Your task to perform on an android device: open app "Flipkart Online Shopping App" (install if not already installed) and go to login screen Image 0: 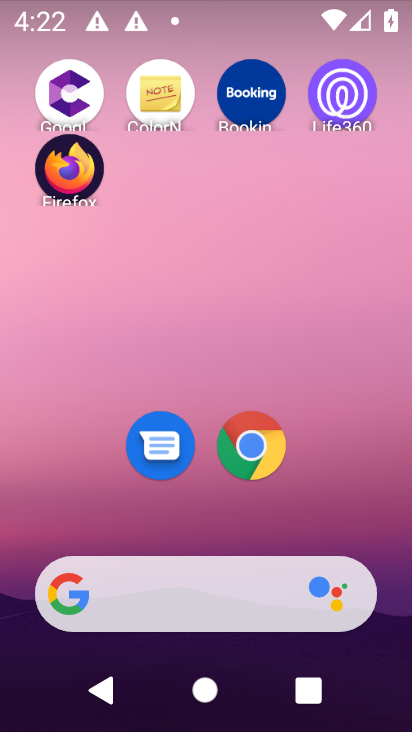
Step 0: drag from (204, 539) to (237, 1)
Your task to perform on an android device: open app "Flipkart Online Shopping App" (install if not already installed) and go to login screen Image 1: 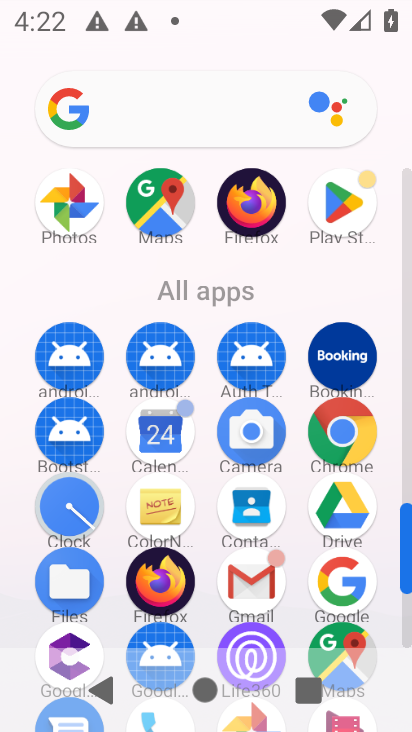
Step 1: click (339, 209)
Your task to perform on an android device: open app "Flipkart Online Shopping App" (install if not already installed) and go to login screen Image 2: 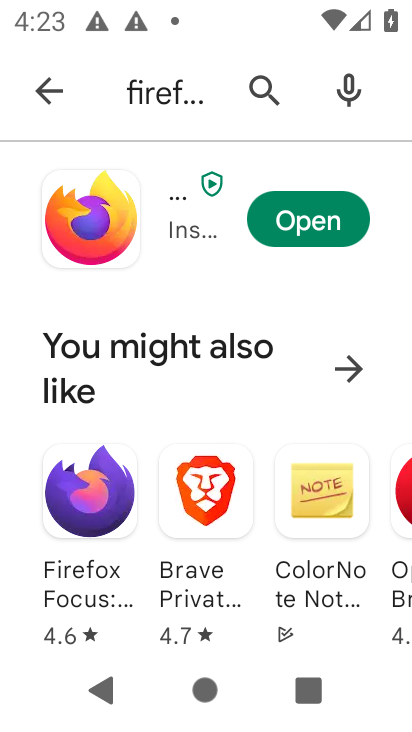
Step 2: click (150, 88)
Your task to perform on an android device: open app "Flipkart Online Shopping App" (install if not already installed) and go to login screen Image 3: 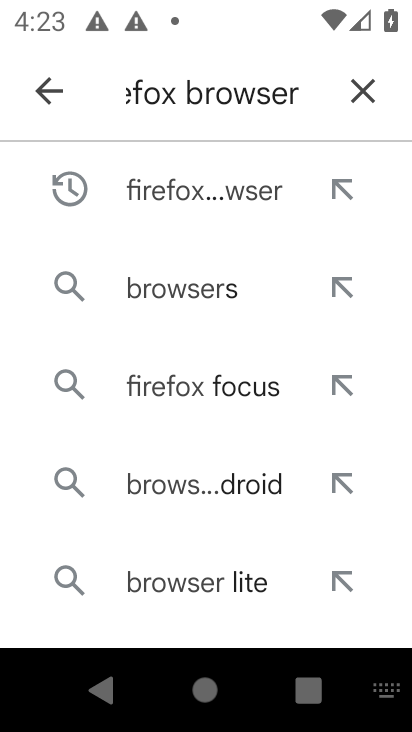
Step 3: click (356, 81)
Your task to perform on an android device: open app "Flipkart Online Shopping App" (install if not already installed) and go to login screen Image 4: 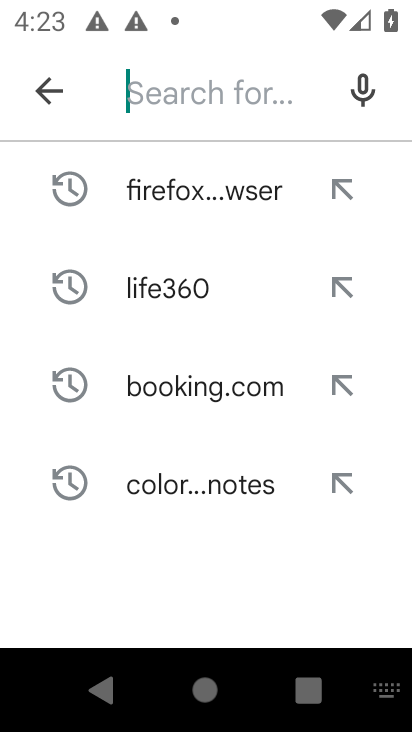
Step 4: type "flipkart"
Your task to perform on an android device: open app "Flipkart Online Shopping App" (install if not already installed) and go to login screen Image 5: 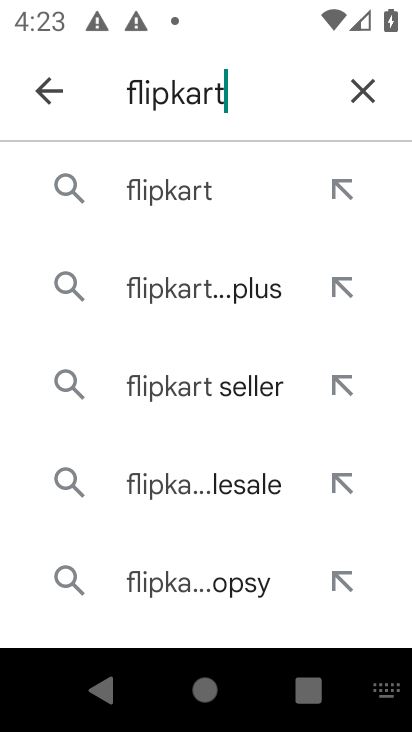
Step 5: click (158, 229)
Your task to perform on an android device: open app "Flipkart Online Shopping App" (install if not already installed) and go to login screen Image 6: 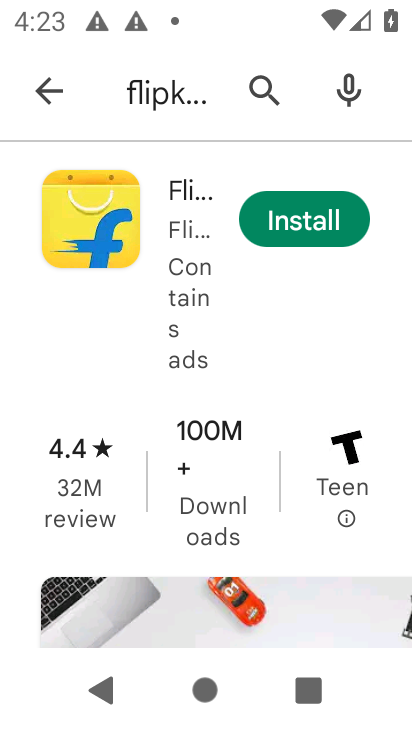
Step 6: click (296, 225)
Your task to perform on an android device: open app "Flipkart Online Shopping App" (install if not already installed) and go to login screen Image 7: 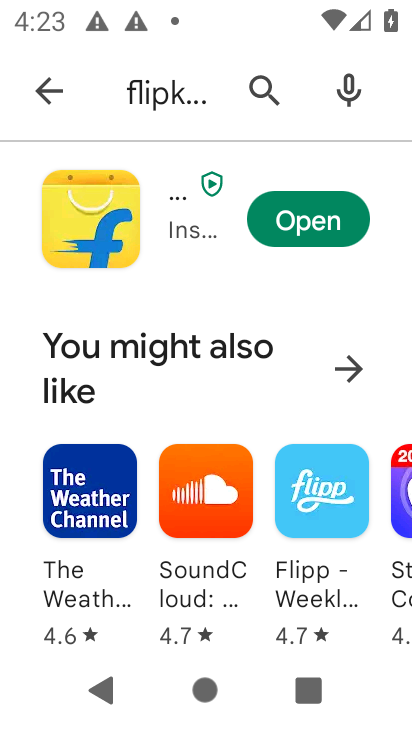
Step 7: click (317, 220)
Your task to perform on an android device: open app "Flipkart Online Shopping App" (install if not already installed) and go to login screen Image 8: 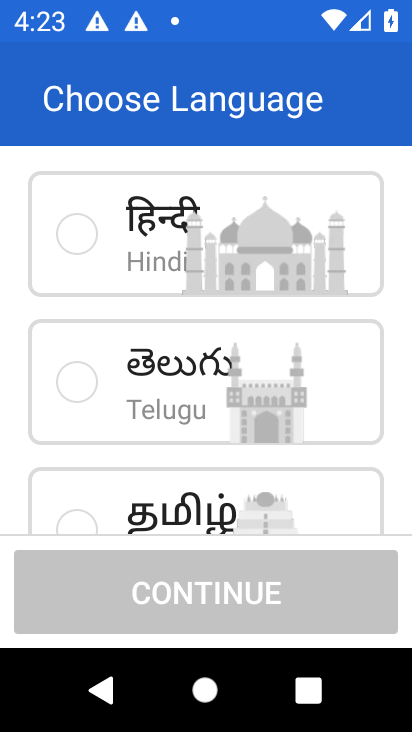
Step 8: drag from (170, 475) to (221, 106)
Your task to perform on an android device: open app "Flipkart Online Shopping App" (install if not already installed) and go to login screen Image 9: 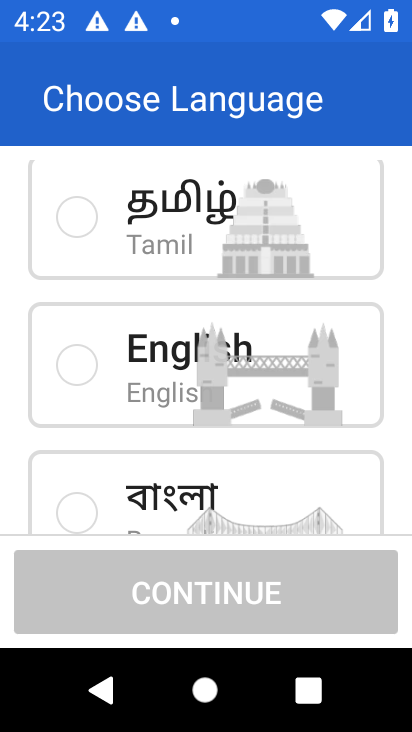
Step 9: click (80, 347)
Your task to perform on an android device: open app "Flipkart Online Shopping App" (install if not already installed) and go to login screen Image 10: 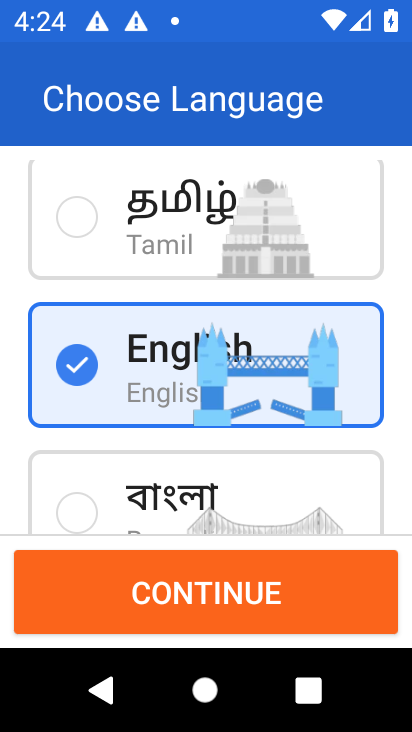
Step 10: click (162, 602)
Your task to perform on an android device: open app "Flipkart Online Shopping App" (install if not already installed) and go to login screen Image 11: 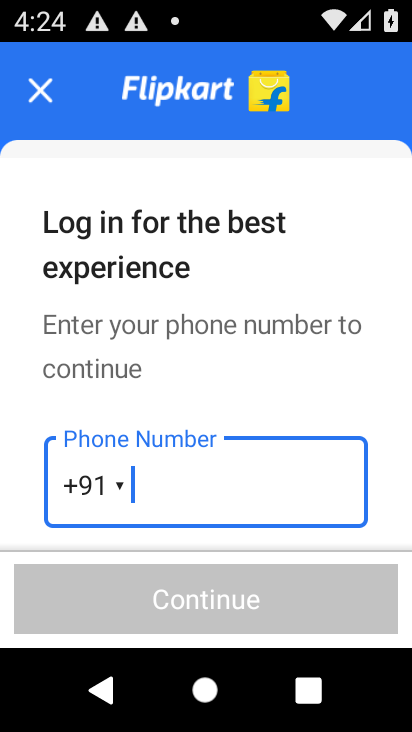
Step 11: drag from (220, 454) to (281, 138)
Your task to perform on an android device: open app "Flipkart Online Shopping App" (install if not already installed) and go to login screen Image 12: 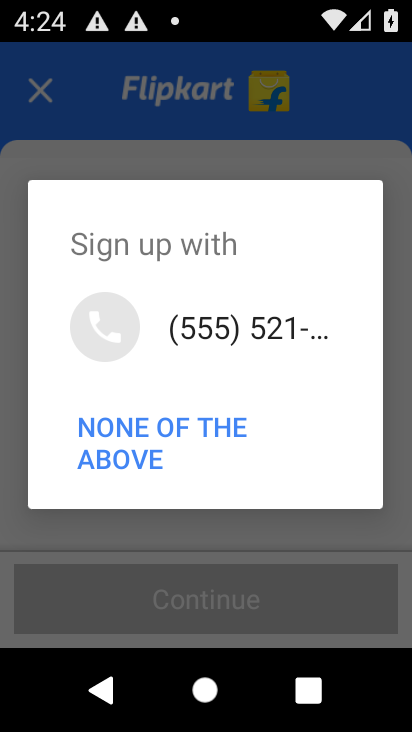
Step 12: click (170, 432)
Your task to perform on an android device: open app "Flipkart Online Shopping App" (install if not already installed) and go to login screen Image 13: 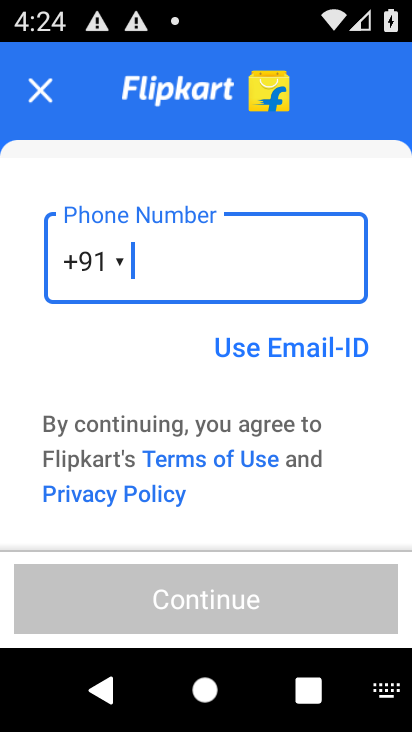
Step 13: drag from (241, 485) to (243, 296)
Your task to perform on an android device: open app "Flipkart Online Shopping App" (install if not already installed) and go to login screen Image 14: 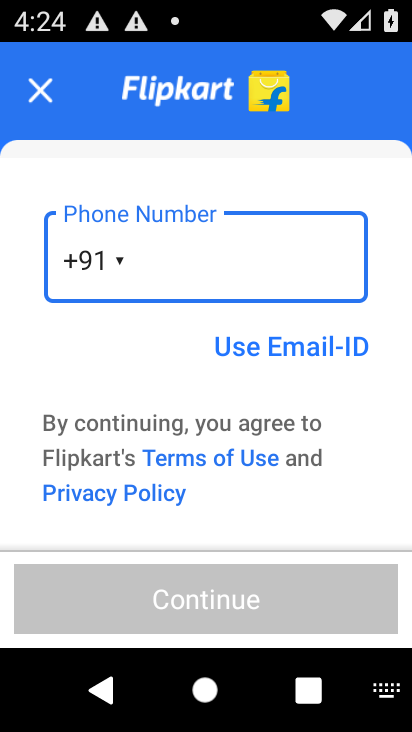
Step 14: click (313, 345)
Your task to perform on an android device: open app "Flipkart Online Shopping App" (install if not already installed) and go to login screen Image 15: 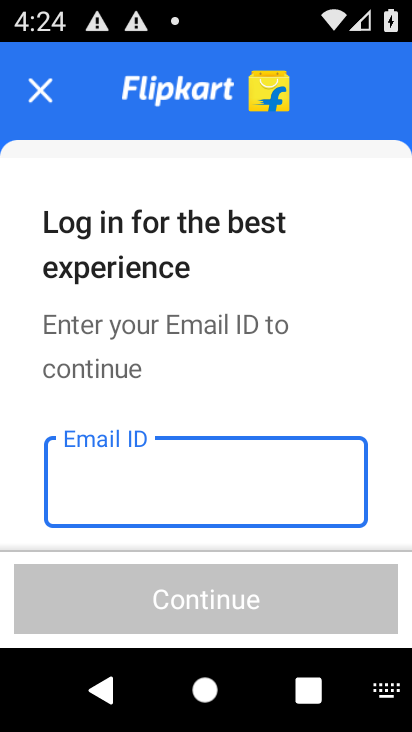
Step 15: task complete